Your task to perform on an android device: check data usage Image 0: 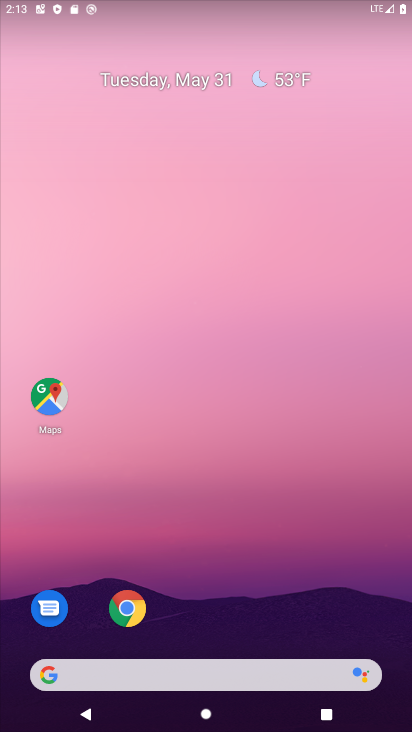
Step 0: drag from (321, 603) to (350, 61)
Your task to perform on an android device: check data usage Image 1: 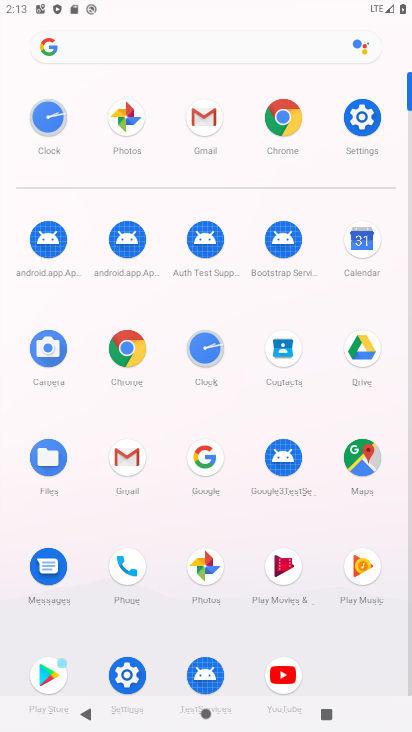
Step 1: click (362, 120)
Your task to perform on an android device: check data usage Image 2: 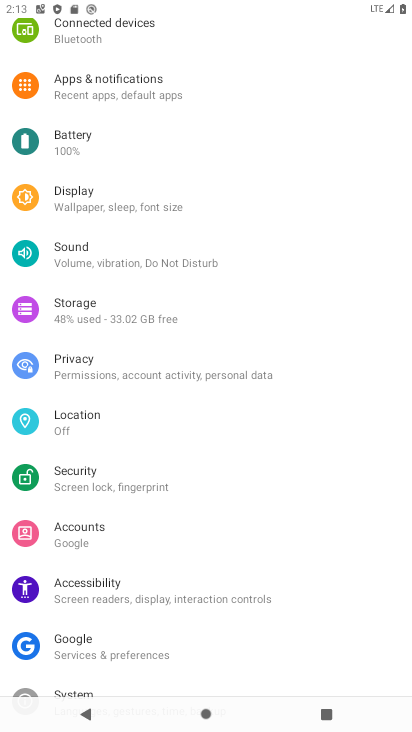
Step 2: drag from (306, 54) to (304, 262)
Your task to perform on an android device: check data usage Image 3: 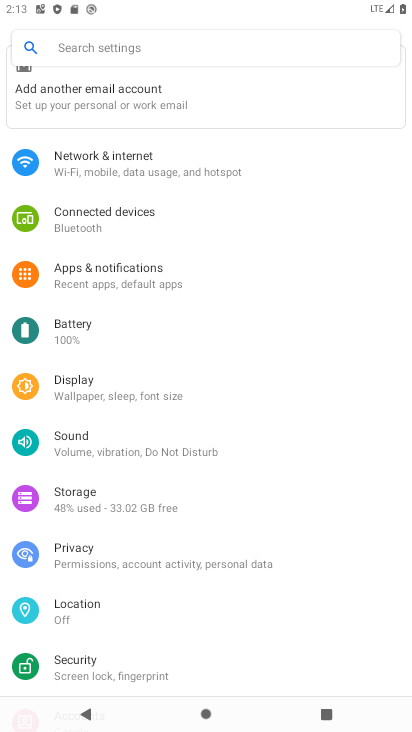
Step 3: click (186, 156)
Your task to perform on an android device: check data usage Image 4: 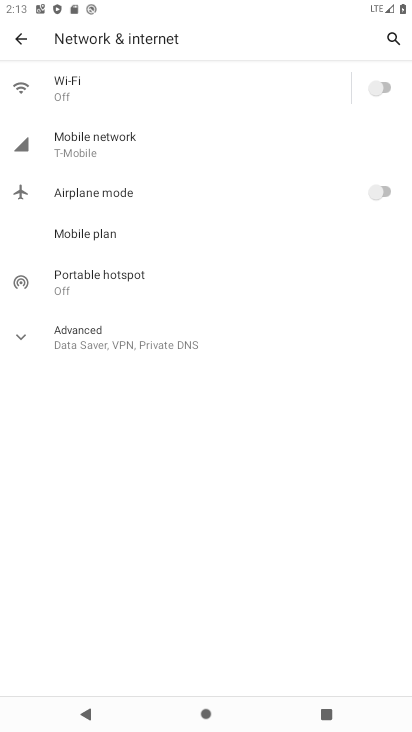
Step 4: click (99, 138)
Your task to perform on an android device: check data usage Image 5: 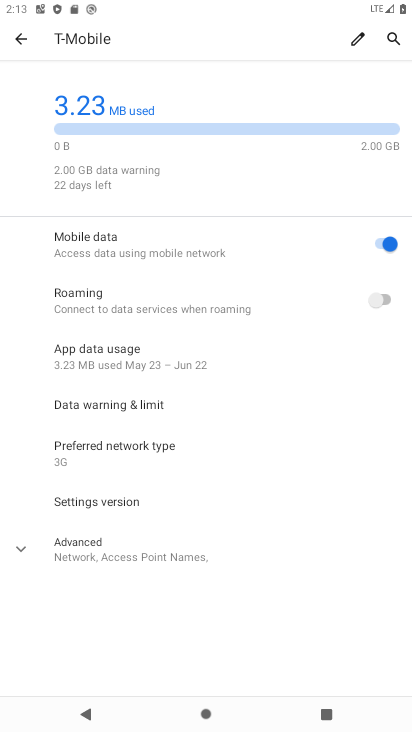
Step 5: task complete